Your task to perform on an android device: Is it going to rain tomorrow? Image 0: 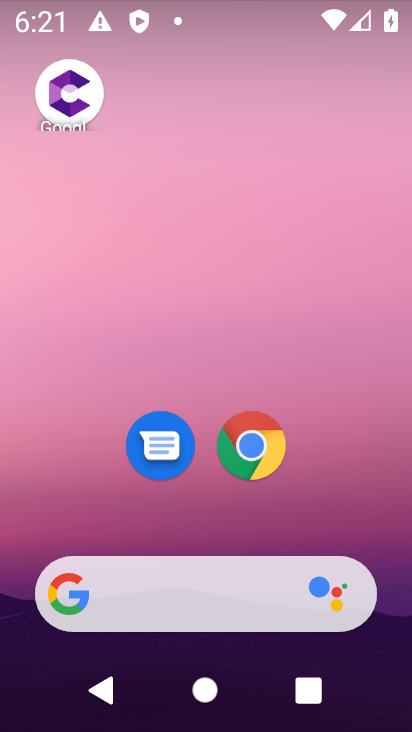
Step 0: drag from (219, 348) to (226, 156)
Your task to perform on an android device: Is it going to rain tomorrow? Image 1: 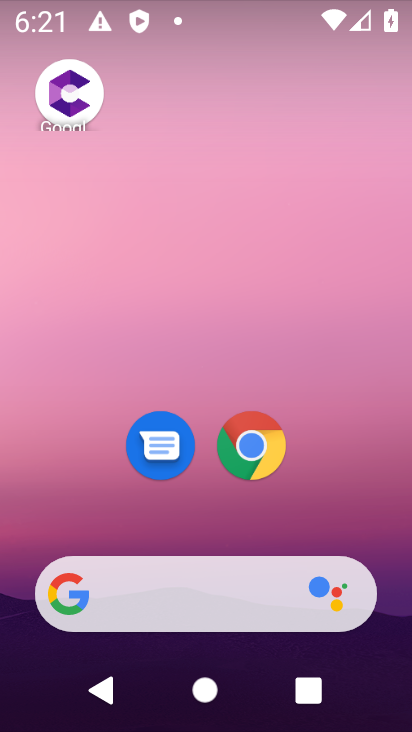
Step 1: drag from (178, 498) to (271, 40)
Your task to perform on an android device: Is it going to rain tomorrow? Image 2: 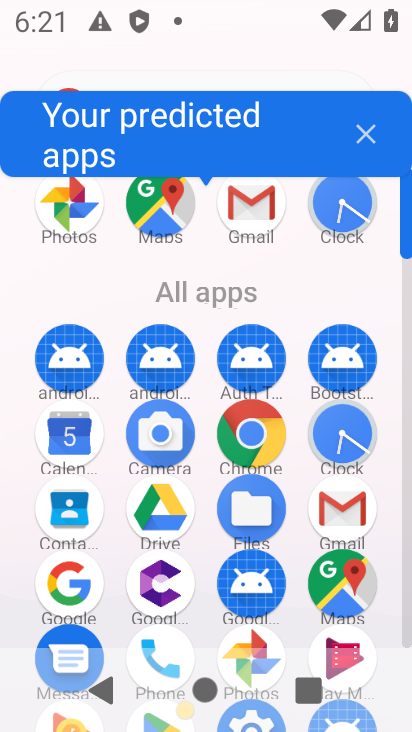
Step 2: click (161, 66)
Your task to perform on an android device: Is it going to rain tomorrow? Image 3: 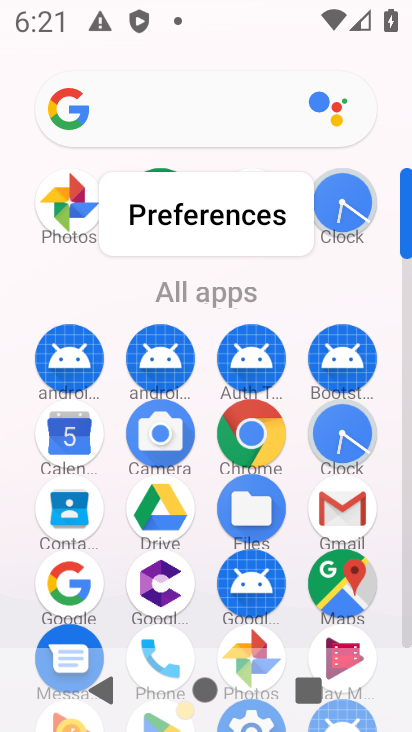
Step 3: click (150, 106)
Your task to perform on an android device: Is it going to rain tomorrow? Image 4: 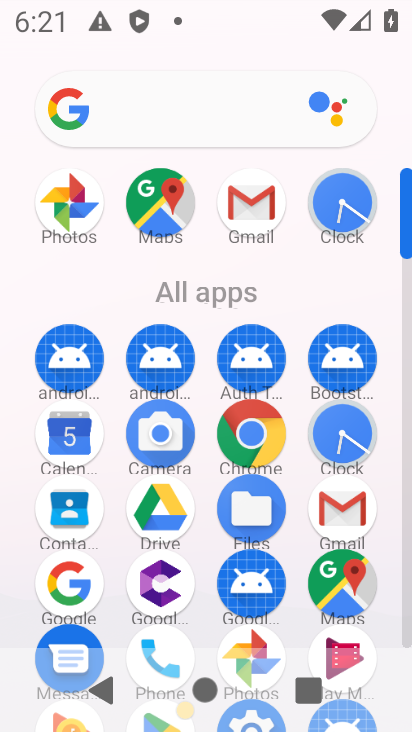
Step 4: click (150, 106)
Your task to perform on an android device: Is it going to rain tomorrow? Image 5: 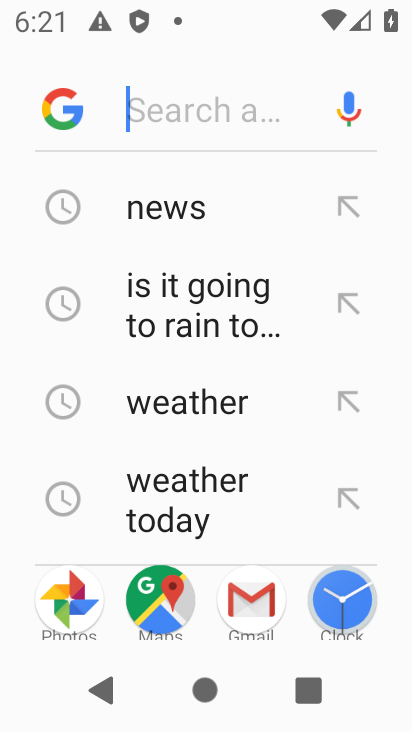
Step 5: type "Is it going to rain tomorrow?"
Your task to perform on an android device: Is it going to rain tomorrow? Image 6: 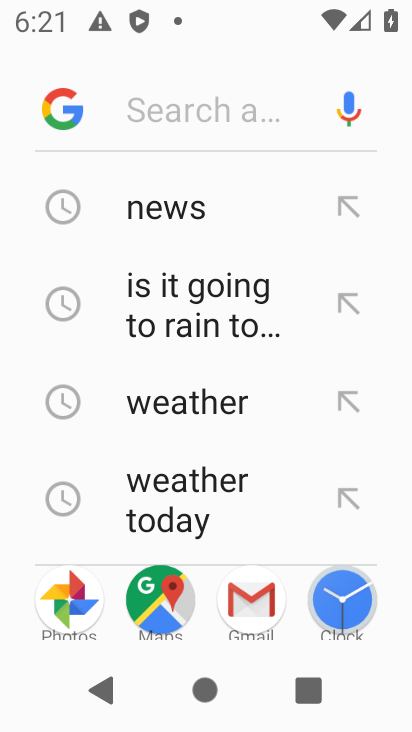
Step 6: click (164, 118)
Your task to perform on an android device: Is it going to rain tomorrow? Image 7: 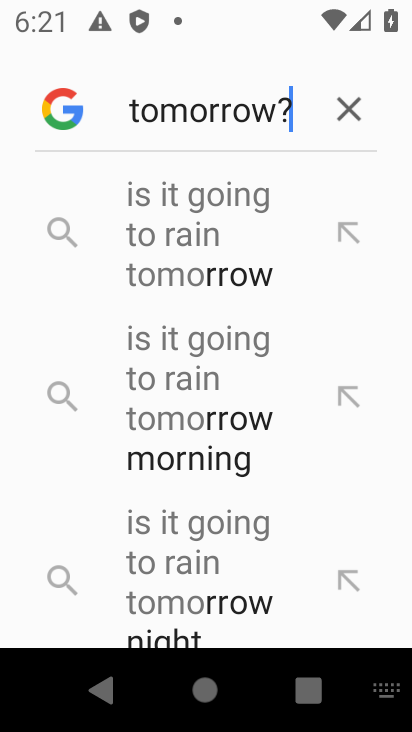
Step 7: type ""
Your task to perform on an android device: Is it going to rain tomorrow? Image 8: 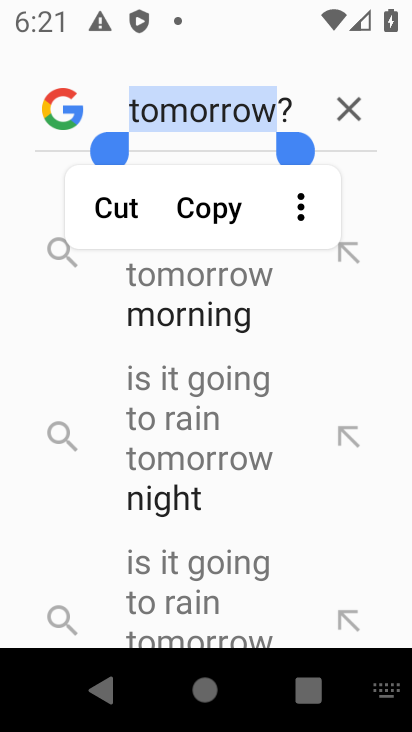
Step 8: click (173, 247)
Your task to perform on an android device: Is it going to rain tomorrow? Image 9: 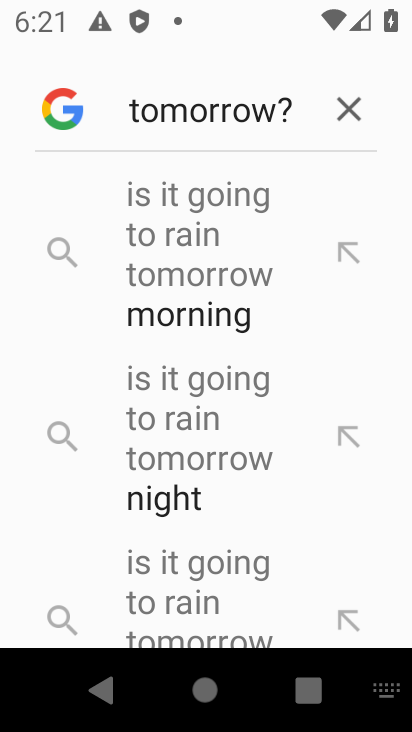
Step 9: click (203, 269)
Your task to perform on an android device: Is it going to rain tomorrow? Image 10: 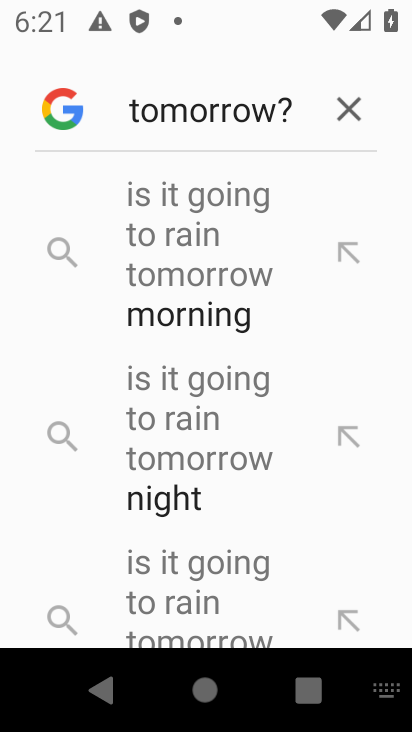
Step 10: click (202, 270)
Your task to perform on an android device: Is it going to rain tomorrow? Image 11: 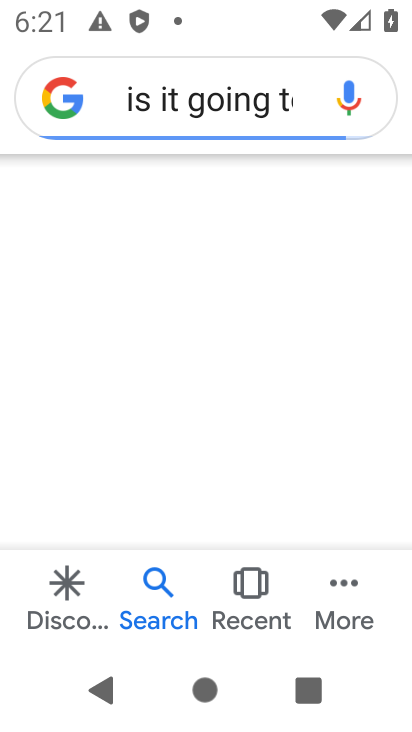
Step 11: task complete